Your task to perform on an android device: turn on data saver in the chrome app Image 0: 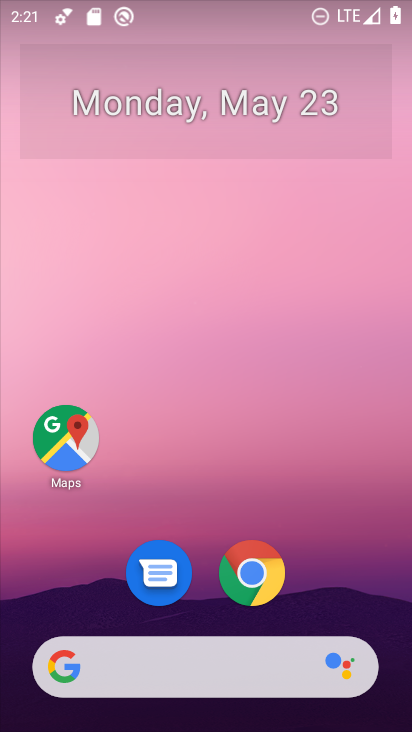
Step 0: click (270, 559)
Your task to perform on an android device: turn on data saver in the chrome app Image 1: 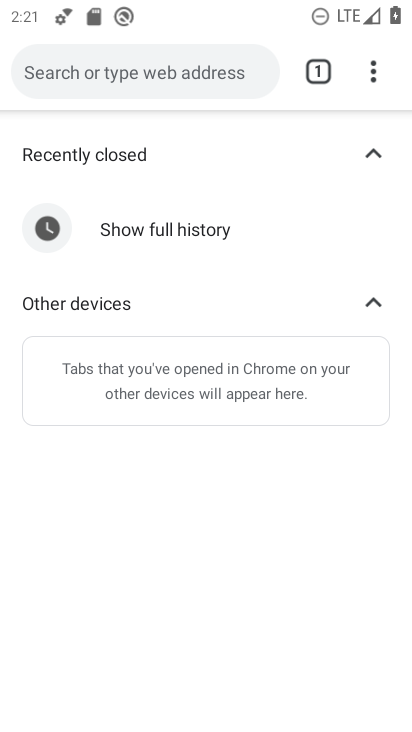
Step 1: drag from (389, 75) to (133, 612)
Your task to perform on an android device: turn on data saver in the chrome app Image 2: 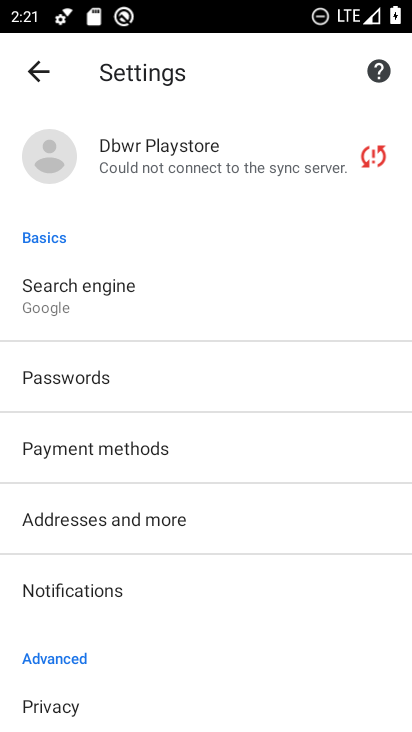
Step 2: drag from (182, 541) to (285, 179)
Your task to perform on an android device: turn on data saver in the chrome app Image 3: 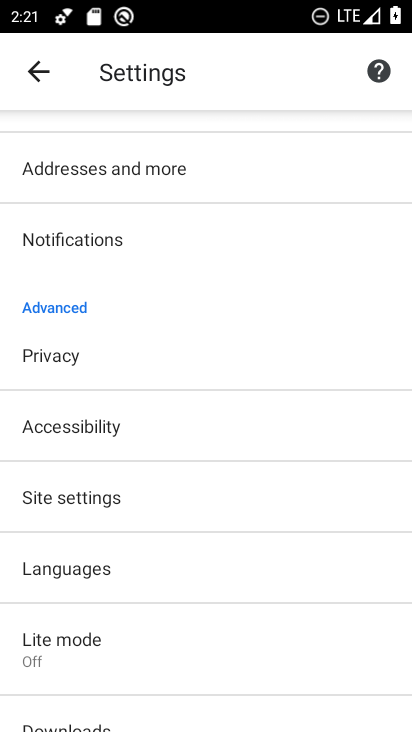
Step 3: drag from (161, 571) to (229, 252)
Your task to perform on an android device: turn on data saver in the chrome app Image 4: 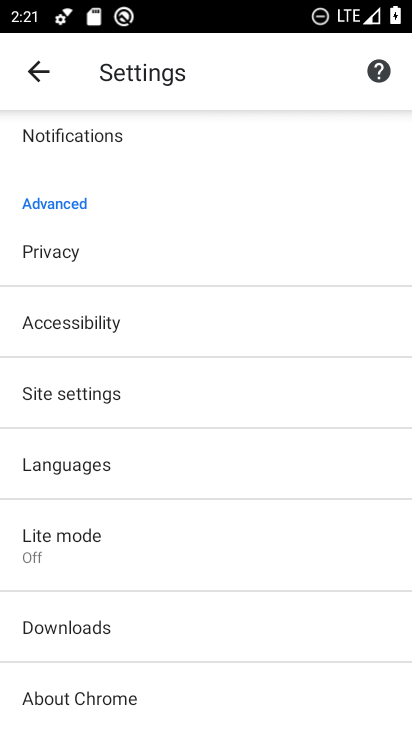
Step 4: click (104, 530)
Your task to perform on an android device: turn on data saver in the chrome app Image 5: 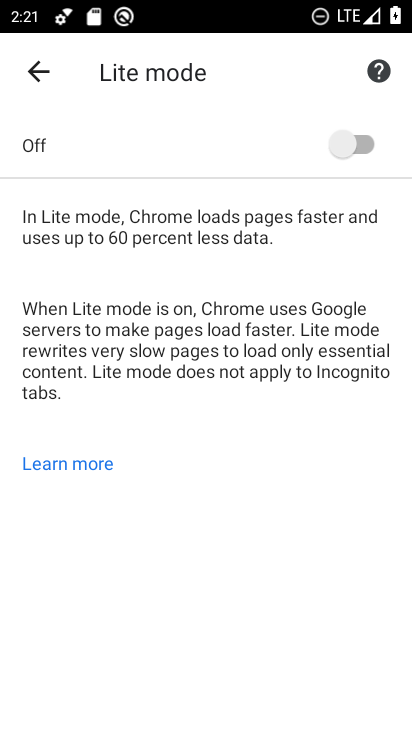
Step 5: click (358, 162)
Your task to perform on an android device: turn on data saver in the chrome app Image 6: 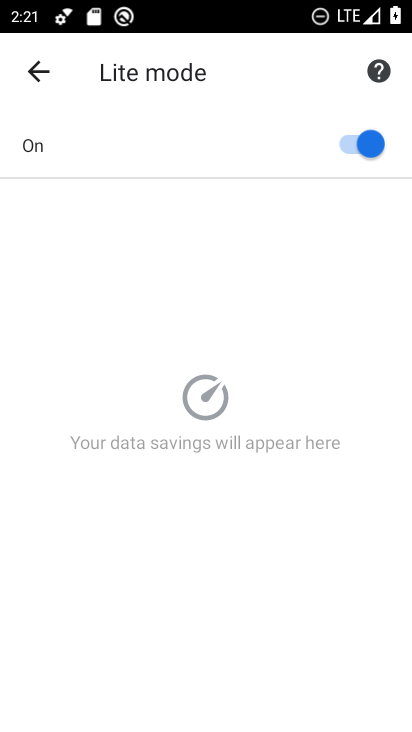
Step 6: task complete